Your task to perform on an android device: remove spam from my inbox in the gmail app Image 0: 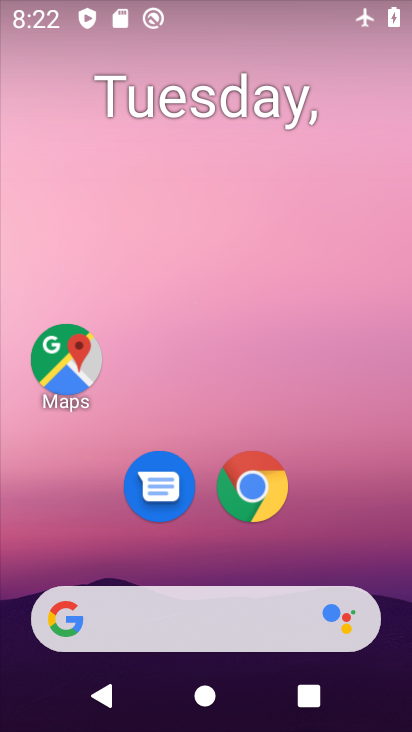
Step 0: drag from (220, 728) to (222, 112)
Your task to perform on an android device: remove spam from my inbox in the gmail app Image 1: 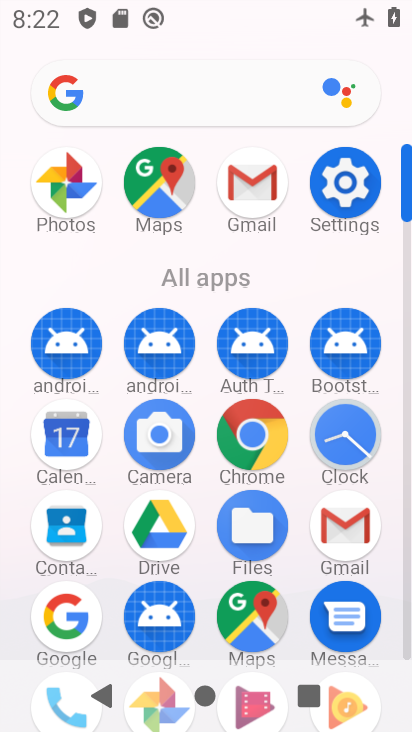
Step 1: click (350, 530)
Your task to perform on an android device: remove spam from my inbox in the gmail app Image 2: 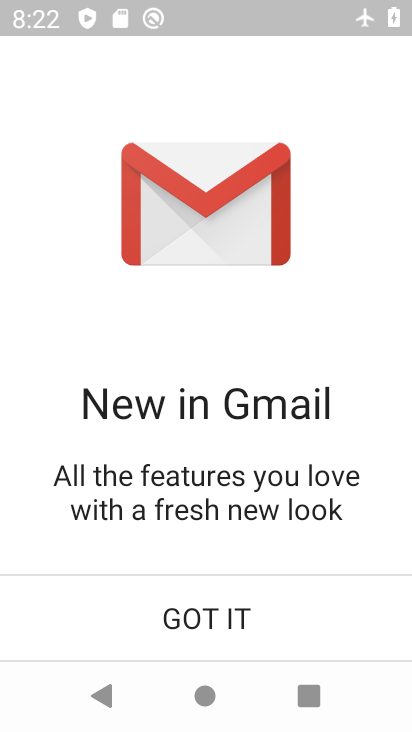
Step 2: click (222, 615)
Your task to perform on an android device: remove spam from my inbox in the gmail app Image 3: 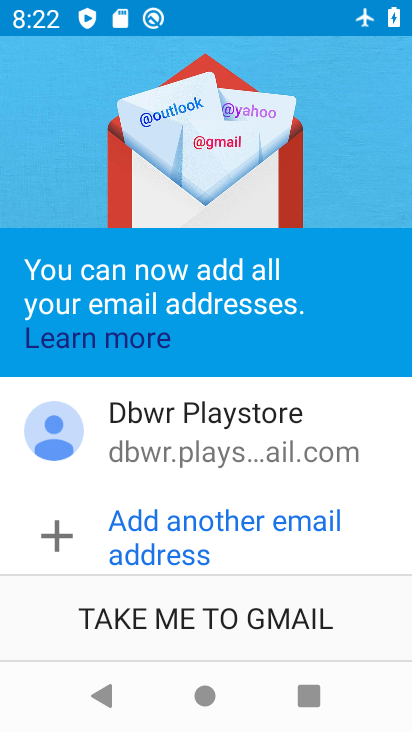
Step 3: click (222, 615)
Your task to perform on an android device: remove spam from my inbox in the gmail app Image 4: 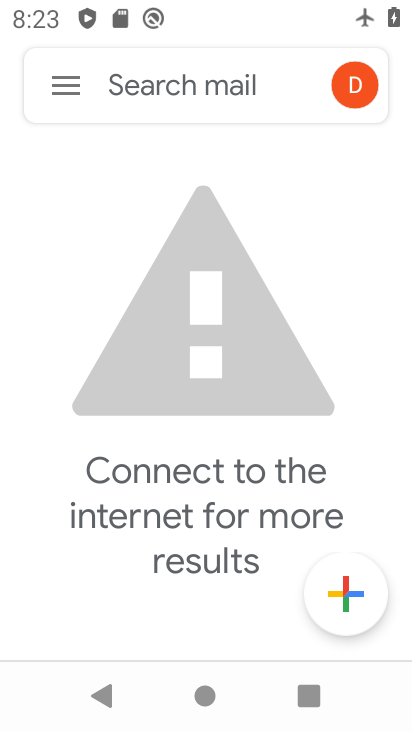
Step 4: task complete